Your task to perform on an android device: Go to battery settings Image 0: 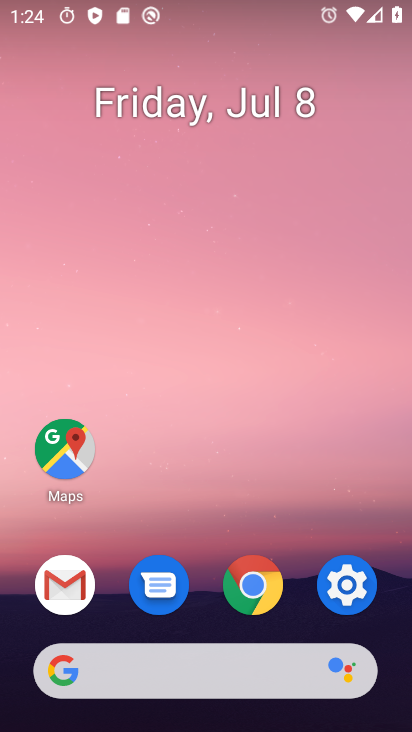
Step 0: click (331, 580)
Your task to perform on an android device: Go to battery settings Image 1: 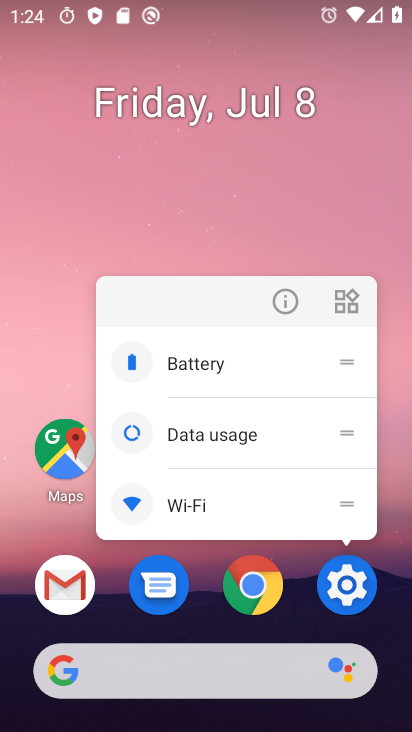
Step 1: click (343, 590)
Your task to perform on an android device: Go to battery settings Image 2: 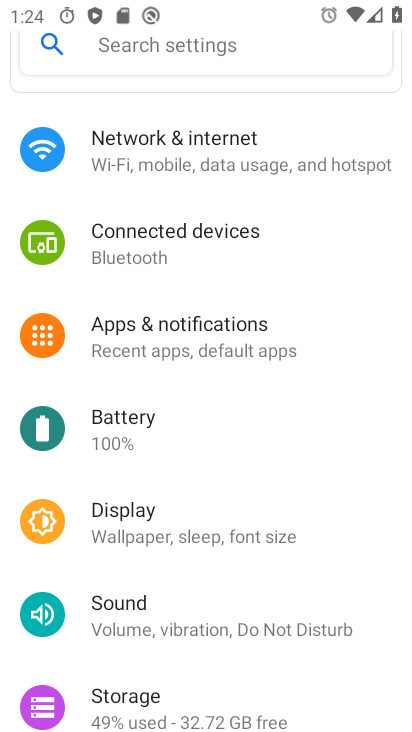
Step 2: click (143, 431)
Your task to perform on an android device: Go to battery settings Image 3: 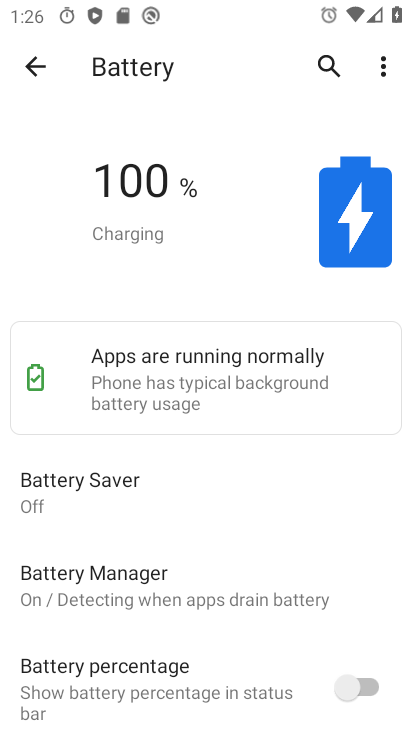
Step 3: task complete